Your task to perform on an android device: When is my next meeting? Image 0: 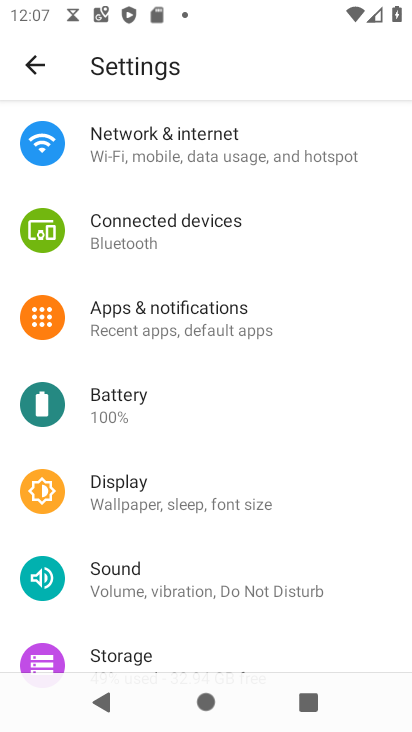
Step 0: press home button
Your task to perform on an android device: When is my next meeting? Image 1: 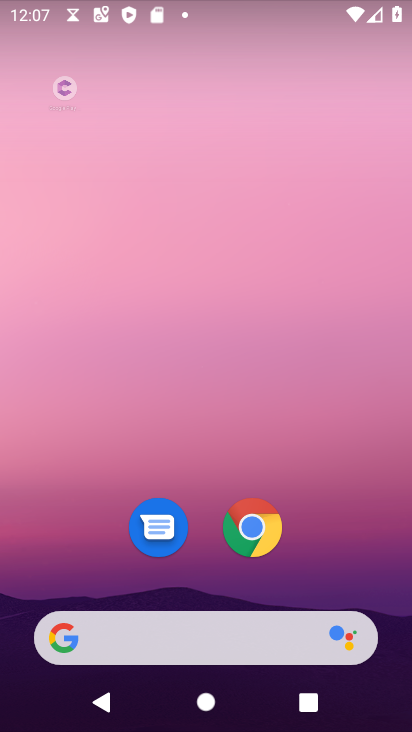
Step 1: drag from (194, 588) to (406, 31)
Your task to perform on an android device: When is my next meeting? Image 2: 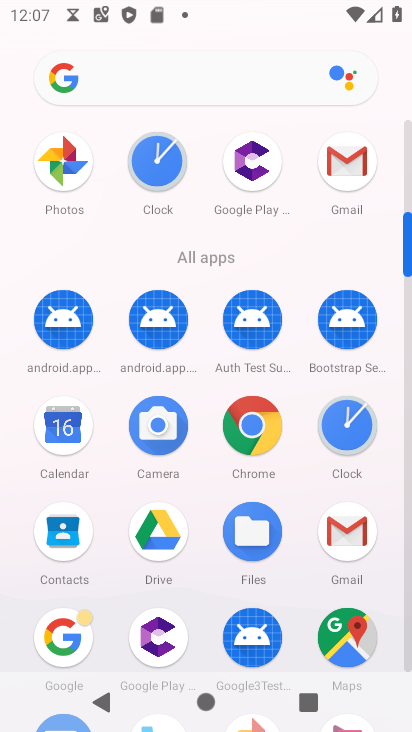
Step 2: click (54, 433)
Your task to perform on an android device: When is my next meeting? Image 3: 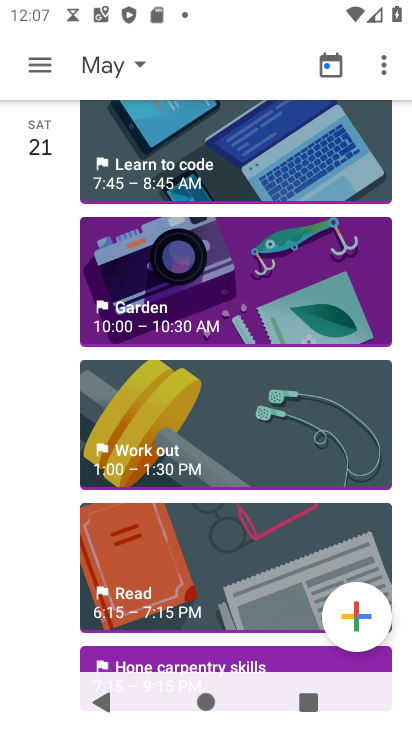
Step 3: click (40, 62)
Your task to perform on an android device: When is my next meeting? Image 4: 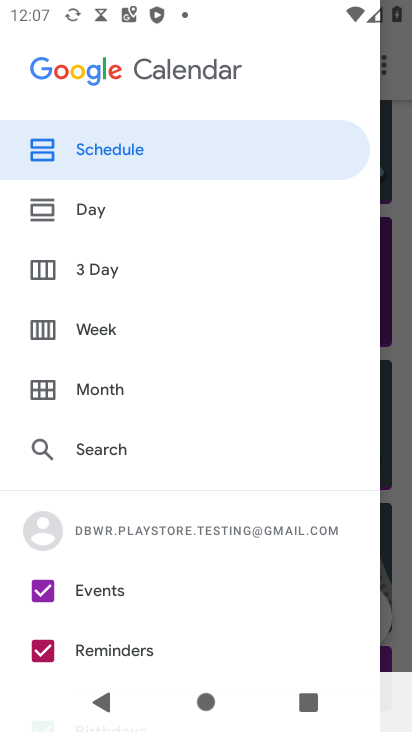
Step 4: click (106, 149)
Your task to perform on an android device: When is my next meeting? Image 5: 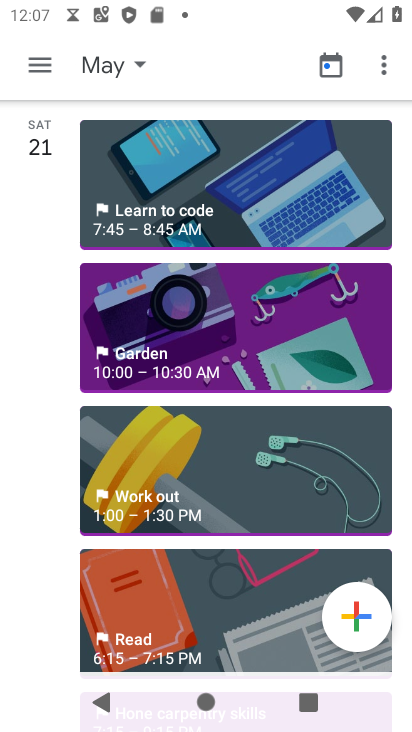
Step 5: task complete